Your task to perform on an android device: turn on javascript in the chrome app Image 0: 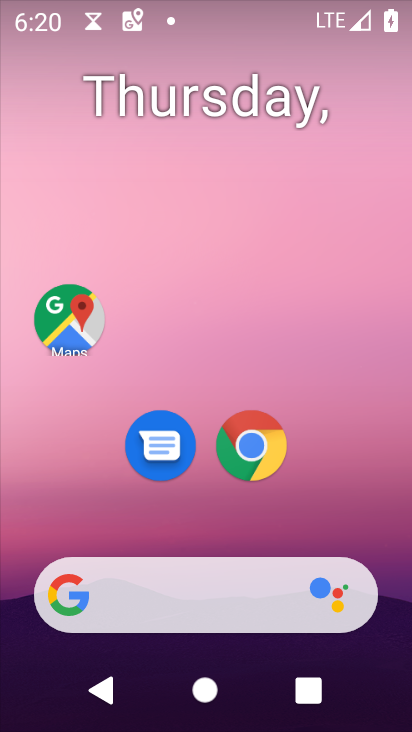
Step 0: click (233, 458)
Your task to perform on an android device: turn on javascript in the chrome app Image 1: 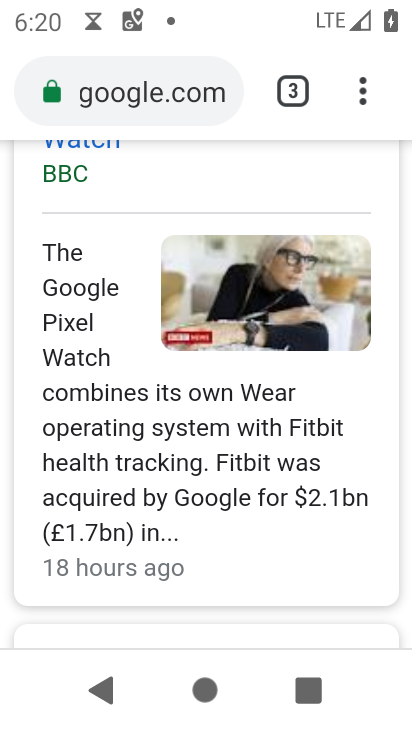
Step 1: drag from (356, 92) to (148, 461)
Your task to perform on an android device: turn on javascript in the chrome app Image 2: 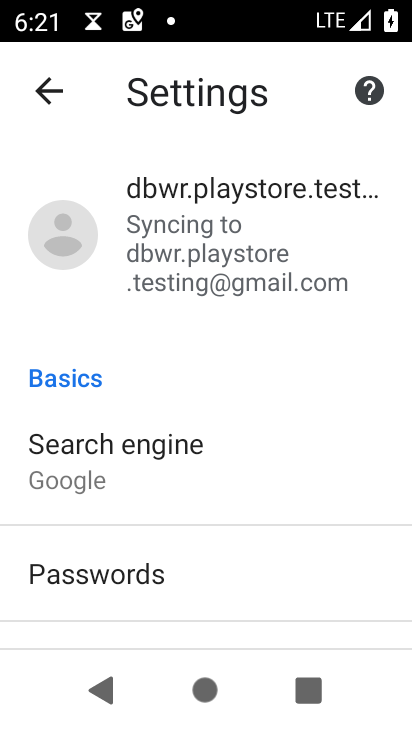
Step 2: drag from (268, 572) to (292, 212)
Your task to perform on an android device: turn on javascript in the chrome app Image 3: 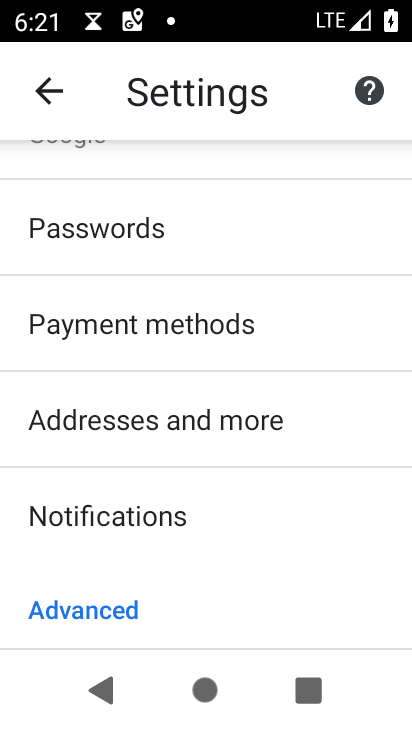
Step 3: drag from (283, 601) to (307, 247)
Your task to perform on an android device: turn on javascript in the chrome app Image 4: 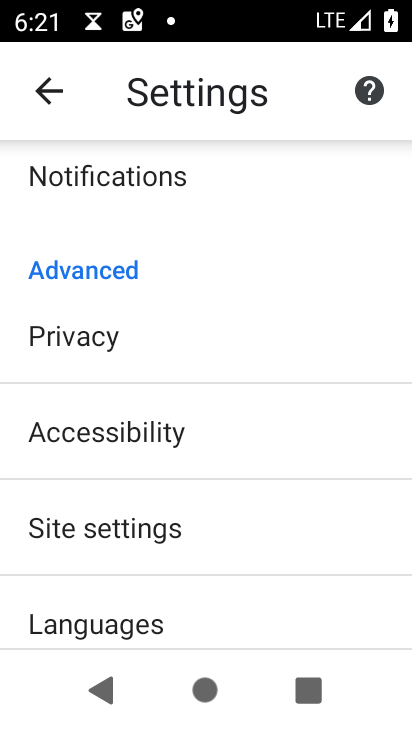
Step 4: click (136, 535)
Your task to perform on an android device: turn on javascript in the chrome app Image 5: 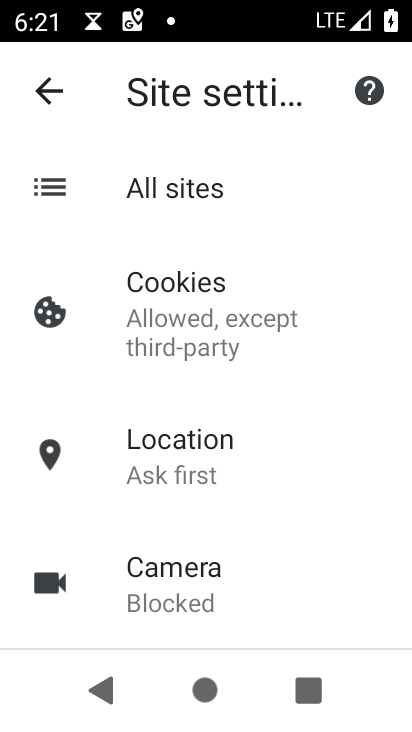
Step 5: drag from (276, 596) to (294, 267)
Your task to perform on an android device: turn on javascript in the chrome app Image 6: 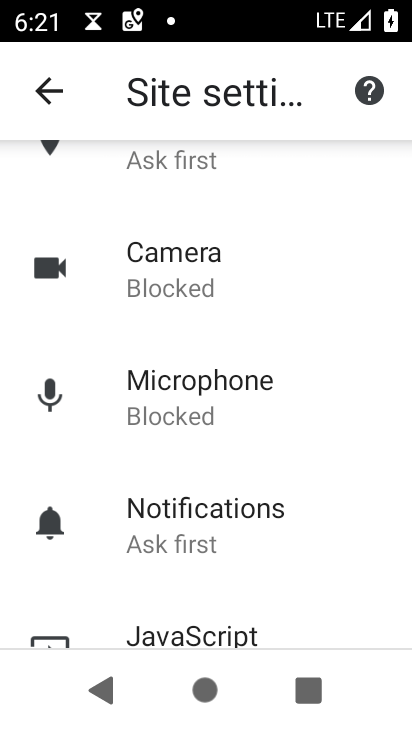
Step 6: click (194, 634)
Your task to perform on an android device: turn on javascript in the chrome app Image 7: 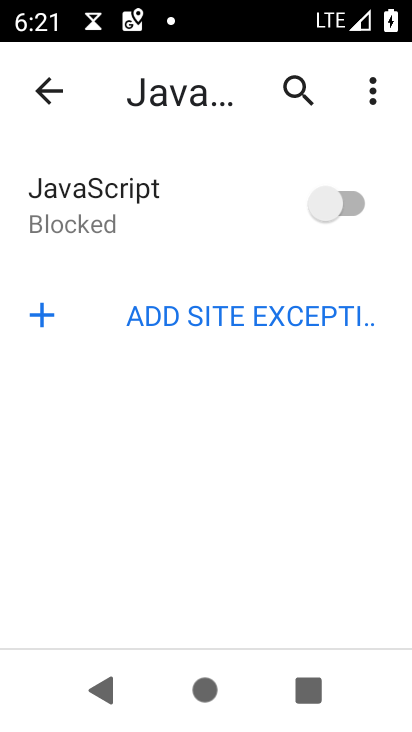
Step 7: click (355, 200)
Your task to perform on an android device: turn on javascript in the chrome app Image 8: 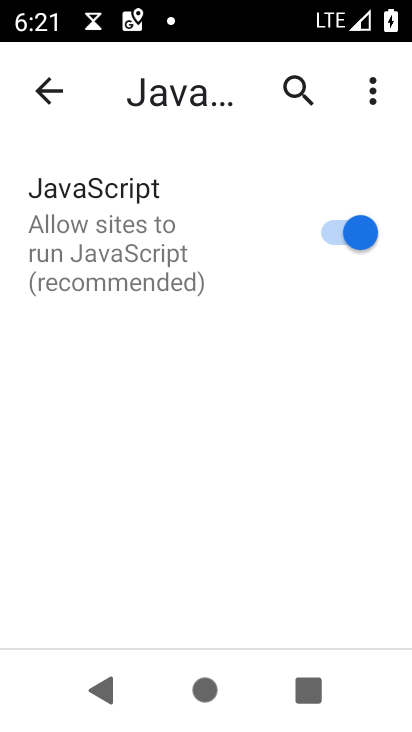
Step 8: task complete